Your task to perform on an android device: stop showing notifications on the lock screen Image 0: 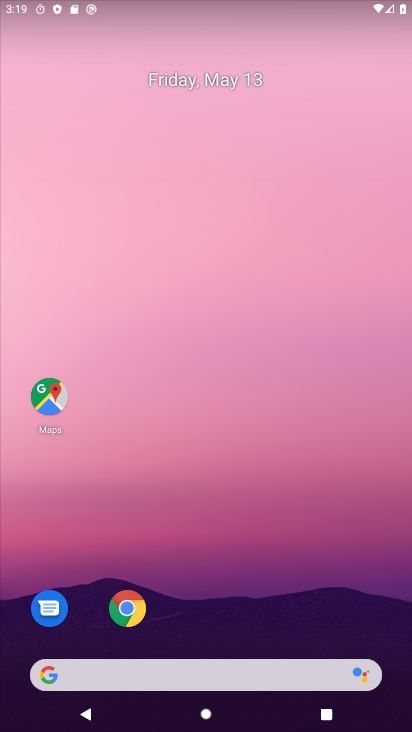
Step 0: drag from (305, 602) to (333, 55)
Your task to perform on an android device: stop showing notifications on the lock screen Image 1: 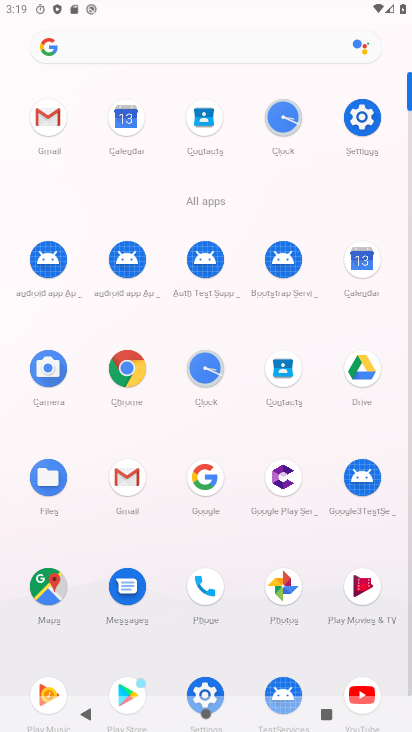
Step 1: click (369, 126)
Your task to perform on an android device: stop showing notifications on the lock screen Image 2: 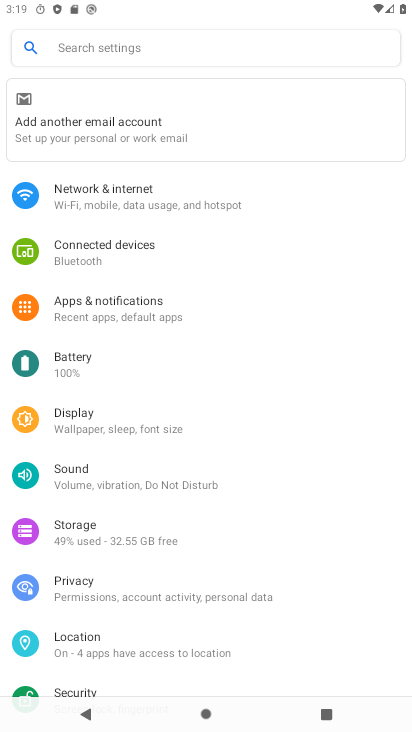
Step 2: click (81, 304)
Your task to perform on an android device: stop showing notifications on the lock screen Image 3: 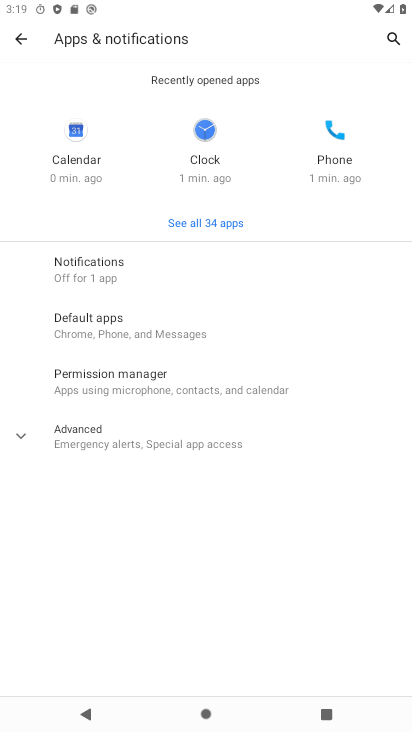
Step 3: click (72, 281)
Your task to perform on an android device: stop showing notifications on the lock screen Image 4: 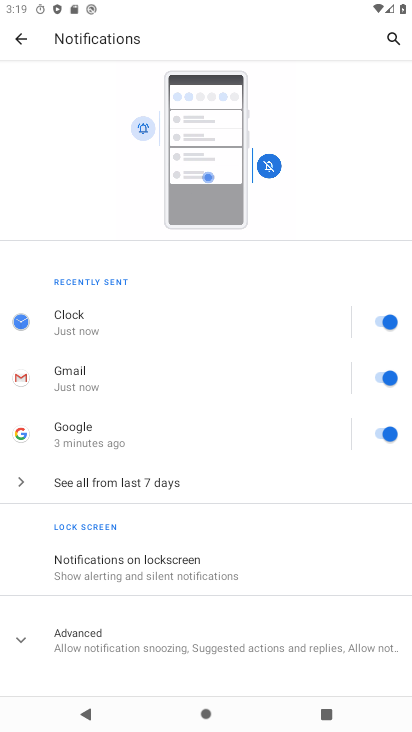
Step 4: drag from (198, 635) to (235, 481)
Your task to perform on an android device: stop showing notifications on the lock screen Image 5: 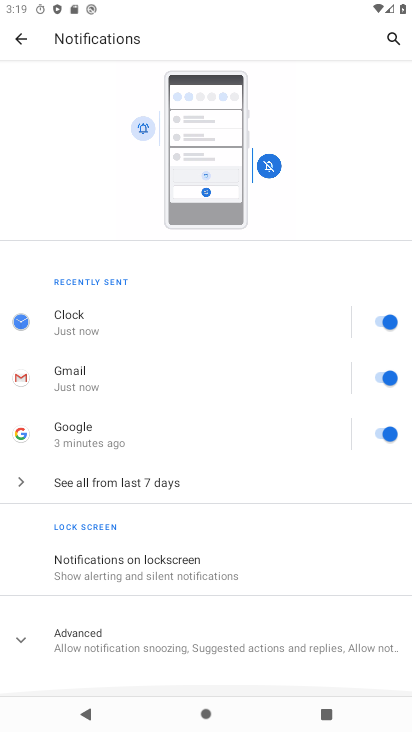
Step 5: click (229, 548)
Your task to perform on an android device: stop showing notifications on the lock screen Image 6: 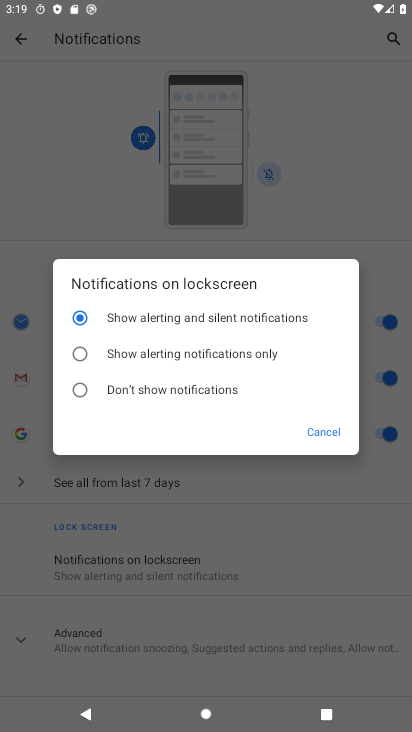
Step 6: click (194, 391)
Your task to perform on an android device: stop showing notifications on the lock screen Image 7: 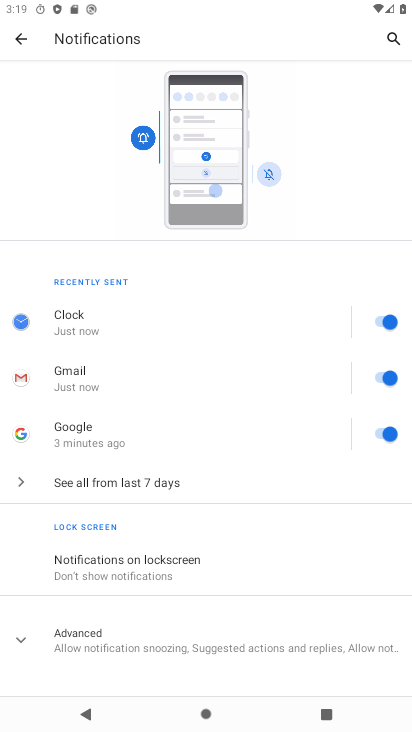
Step 7: task complete